Your task to perform on an android device: create a new album in the google photos Image 0: 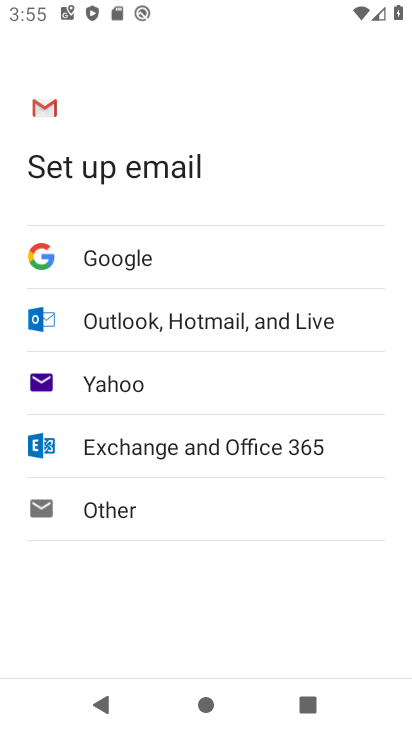
Step 0: press home button
Your task to perform on an android device: create a new album in the google photos Image 1: 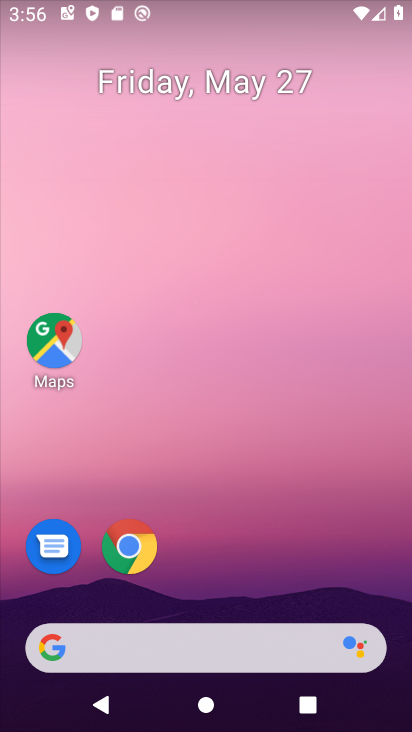
Step 1: press home button
Your task to perform on an android device: create a new album in the google photos Image 2: 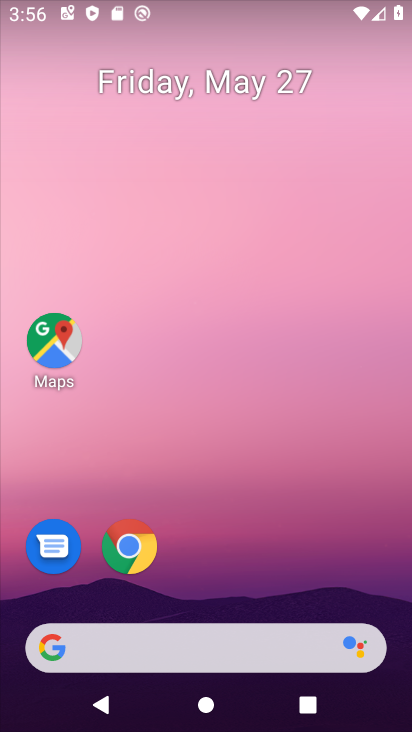
Step 2: drag from (226, 610) to (226, 171)
Your task to perform on an android device: create a new album in the google photos Image 3: 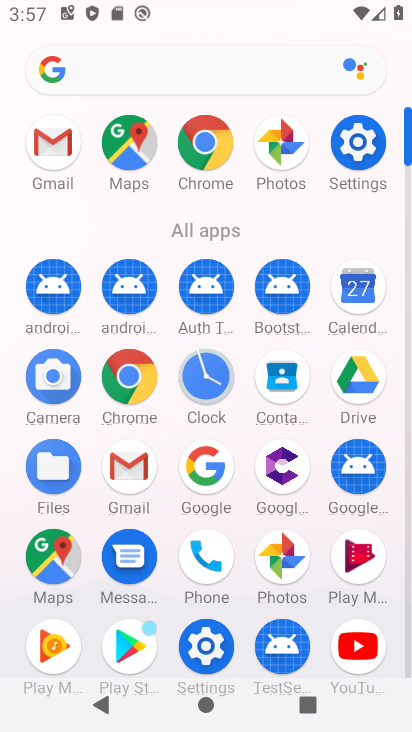
Step 3: click (280, 547)
Your task to perform on an android device: create a new album in the google photos Image 4: 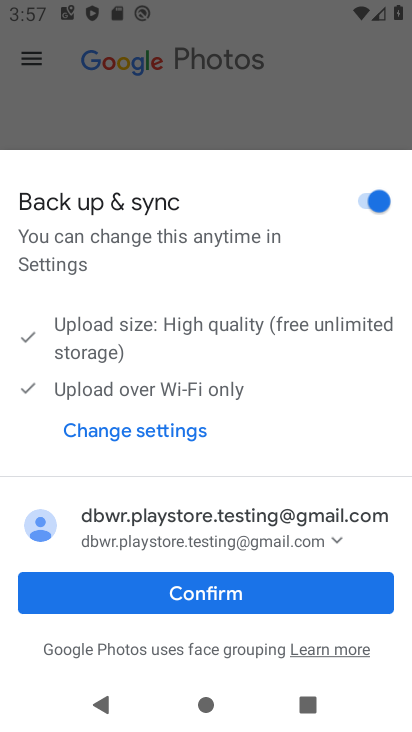
Step 4: click (211, 596)
Your task to perform on an android device: create a new album in the google photos Image 5: 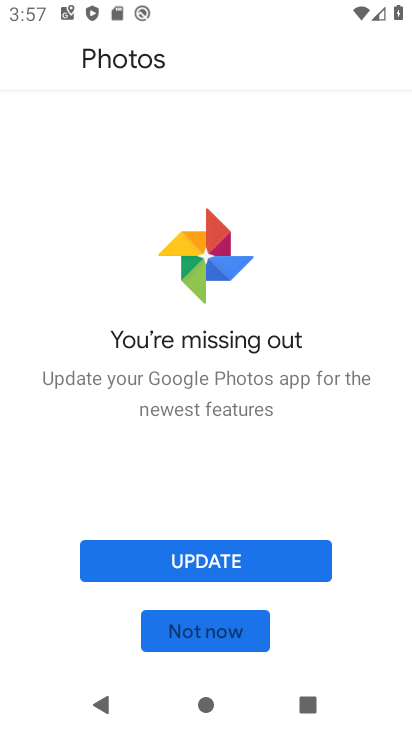
Step 5: click (207, 555)
Your task to perform on an android device: create a new album in the google photos Image 6: 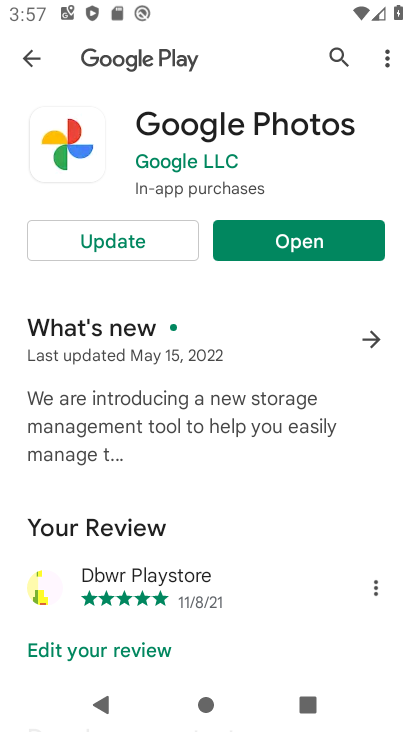
Step 6: click (114, 239)
Your task to perform on an android device: create a new album in the google photos Image 7: 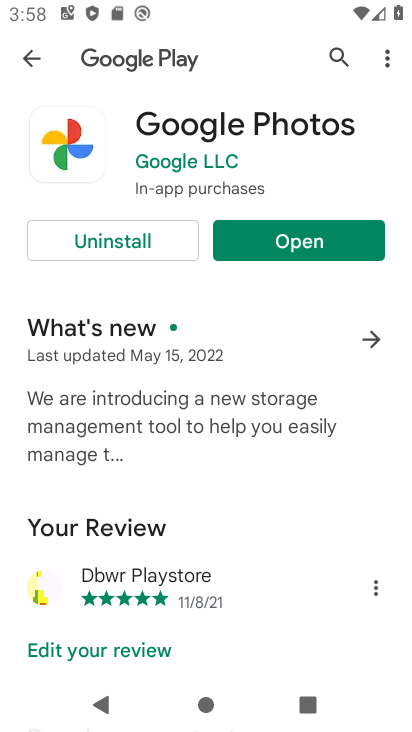
Step 7: click (270, 230)
Your task to perform on an android device: create a new album in the google photos Image 8: 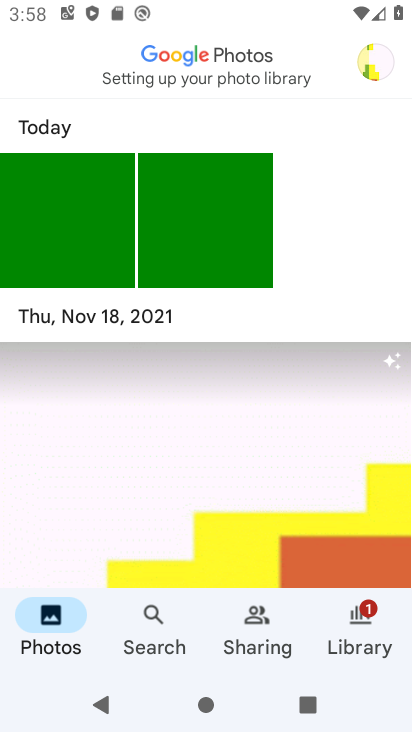
Step 8: click (151, 618)
Your task to perform on an android device: create a new album in the google photos Image 9: 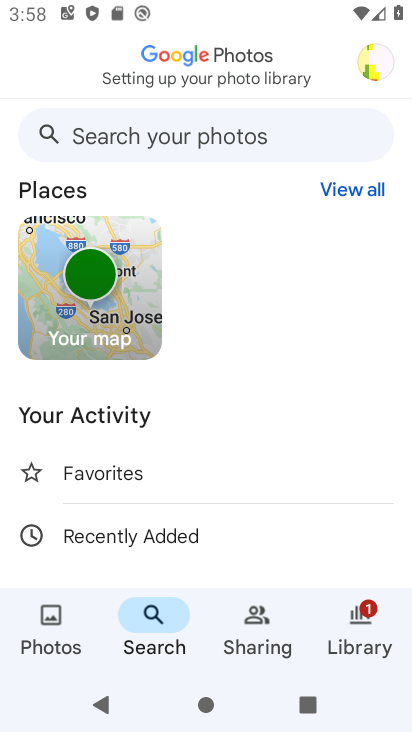
Step 9: click (253, 616)
Your task to perform on an android device: create a new album in the google photos Image 10: 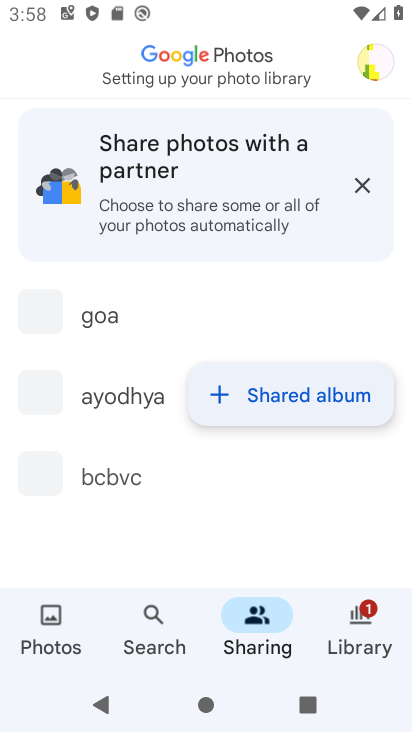
Step 10: click (224, 395)
Your task to perform on an android device: create a new album in the google photos Image 11: 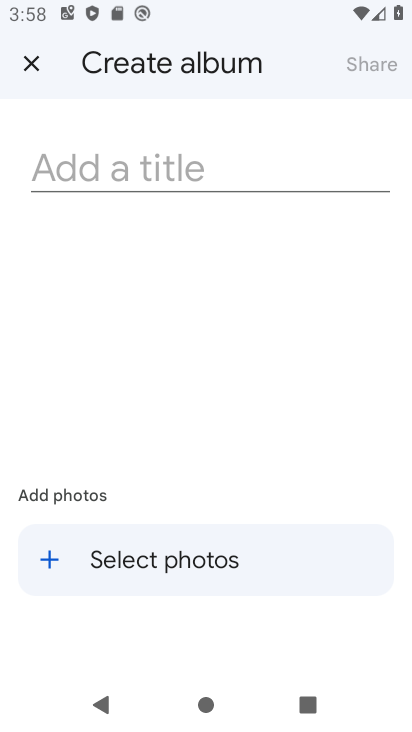
Step 11: click (49, 560)
Your task to perform on an android device: create a new album in the google photos Image 12: 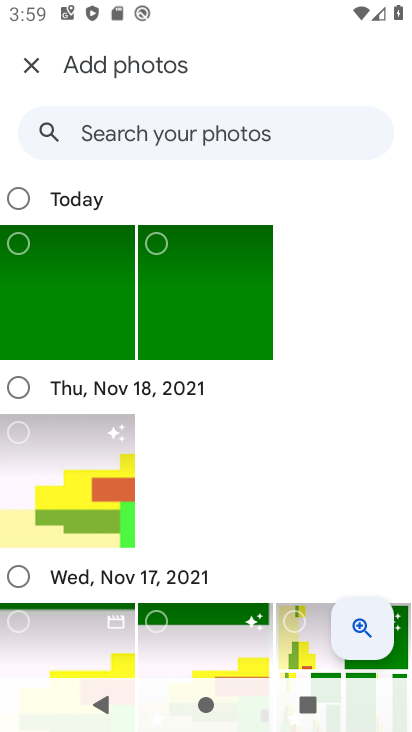
Step 12: click (13, 385)
Your task to perform on an android device: create a new album in the google photos Image 13: 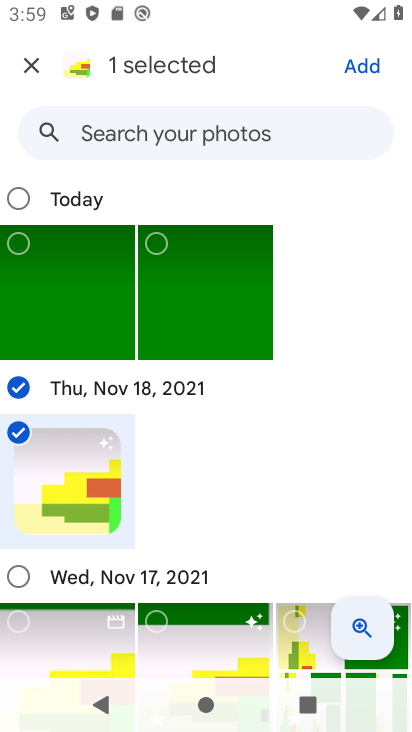
Step 13: click (14, 577)
Your task to perform on an android device: create a new album in the google photos Image 14: 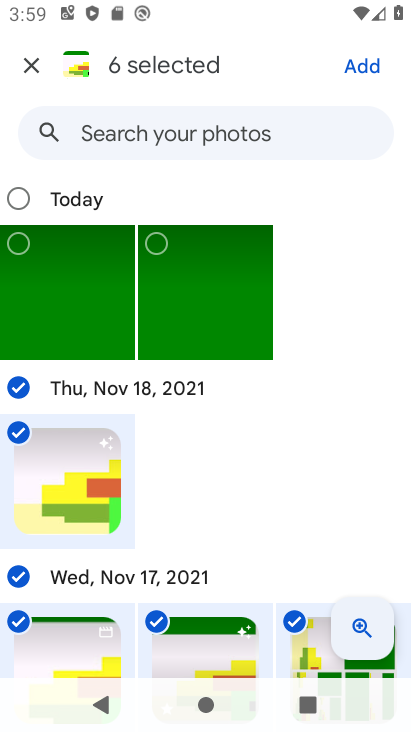
Step 14: click (363, 68)
Your task to perform on an android device: create a new album in the google photos Image 15: 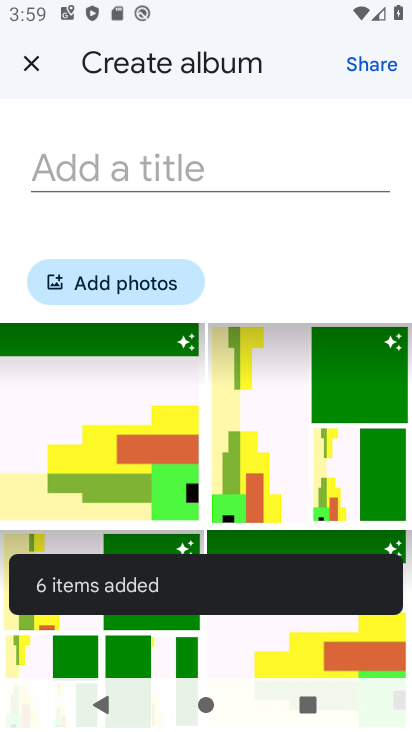
Step 15: click (135, 169)
Your task to perform on an android device: create a new album in the google photos Image 16: 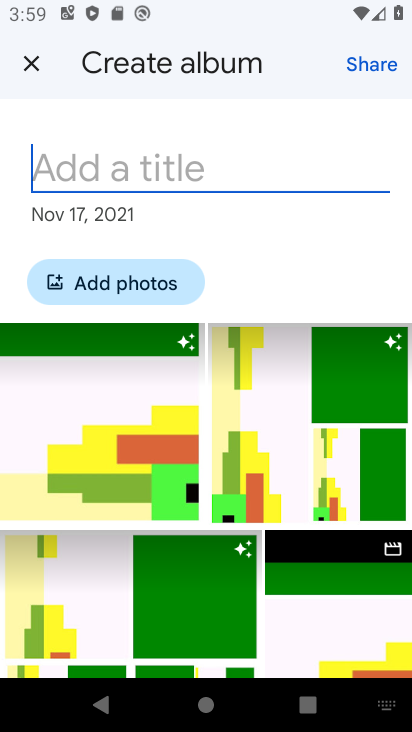
Step 16: type "hgvtfcr"
Your task to perform on an android device: create a new album in the google photos Image 17: 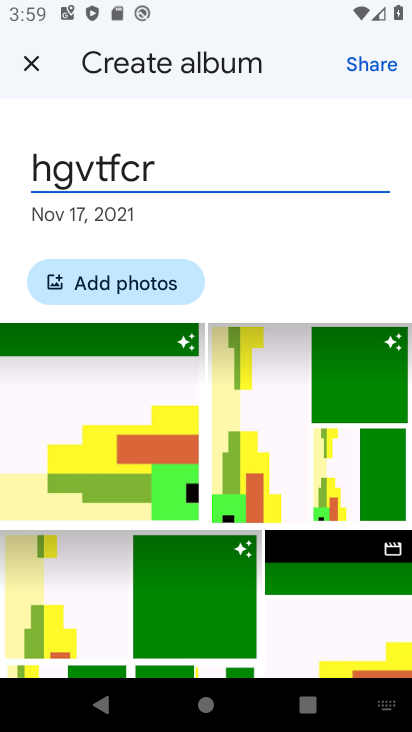
Step 17: task complete